Your task to perform on an android device: Open Youtube and go to the subscriptions tab Image 0: 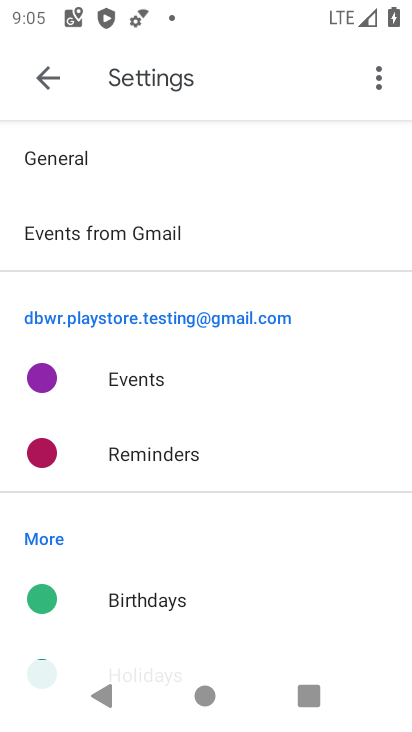
Step 0: press home button
Your task to perform on an android device: Open Youtube and go to the subscriptions tab Image 1: 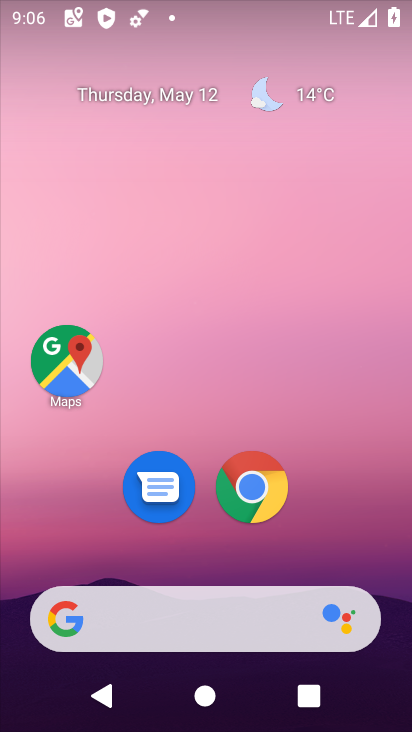
Step 1: drag from (74, 513) to (291, 114)
Your task to perform on an android device: Open Youtube and go to the subscriptions tab Image 2: 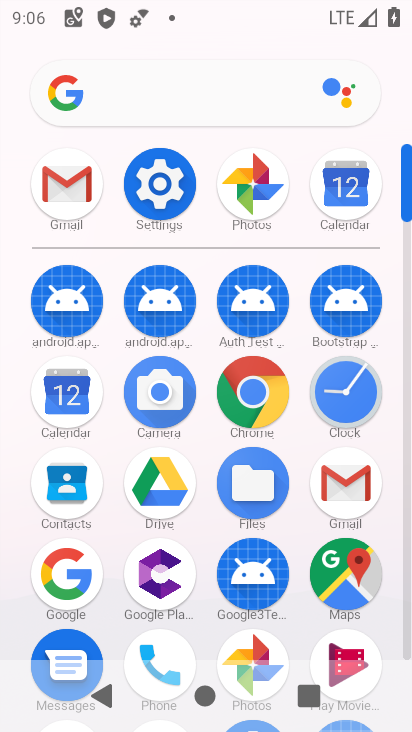
Step 2: drag from (50, 586) to (233, 252)
Your task to perform on an android device: Open Youtube and go to the subscriptions tab Image 3: 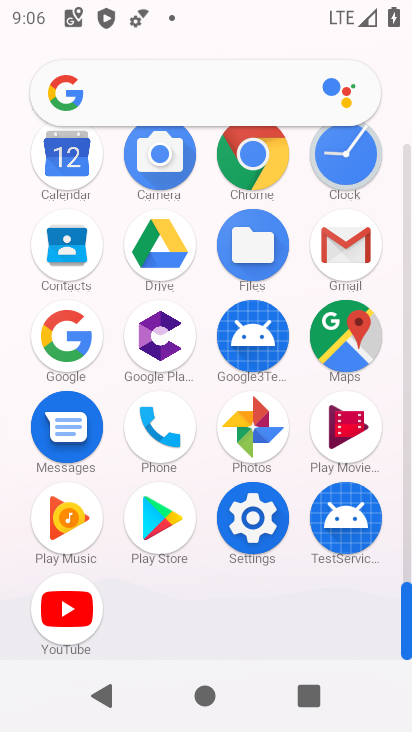
Step 3: click (54, 628)
Your task to perform on an android device: Open Youtube and go to the subscriptions tab Image 4: 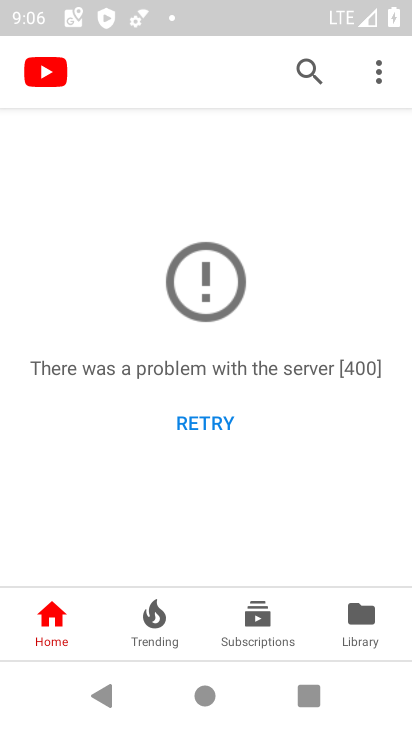
Step 4: click (266, 610)
Your task to perform on an android device: Open Youtube and go to the subscriptions tab Image 5: 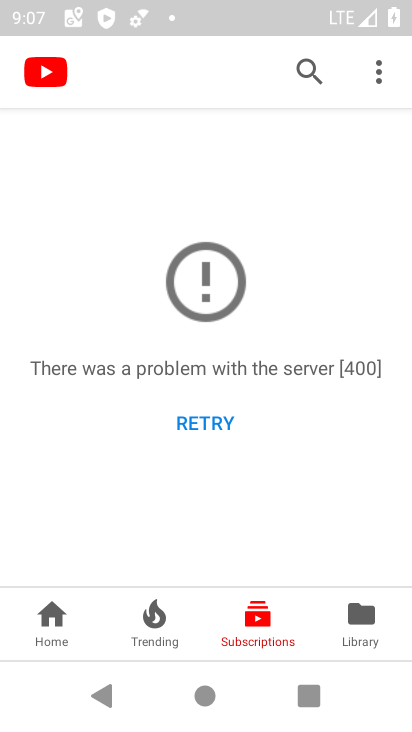
Step 5: task complete